Your task to perform on an android device: set the timer Image 0: 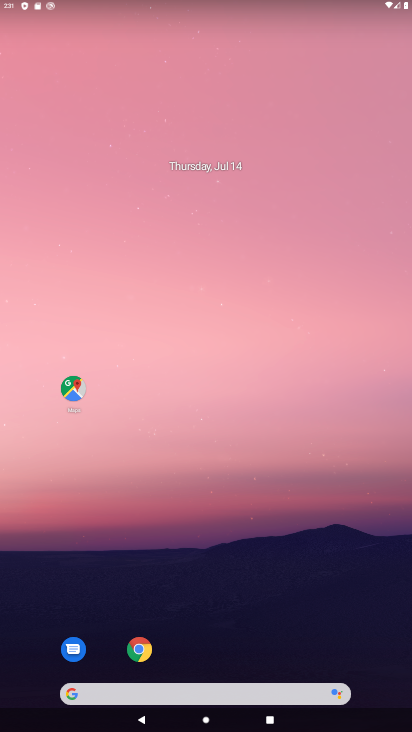
Step 0: drag from (32, 684) to (195, 213)
Your task to perform on an android device: set the timer Image 1: 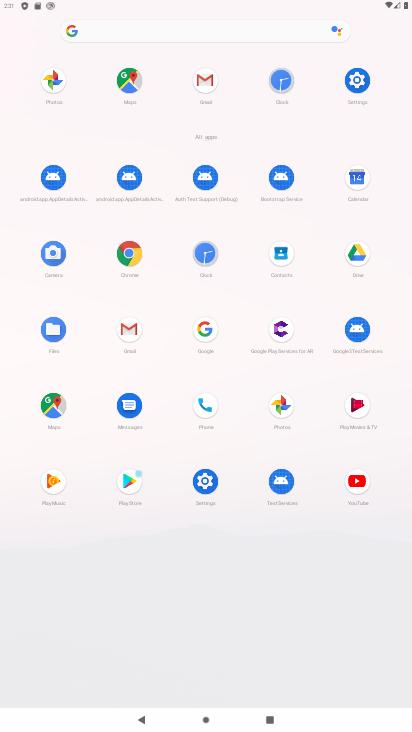
Step 1: click (204, 263)
Your task to perform on an android device: set the timer Image 2: 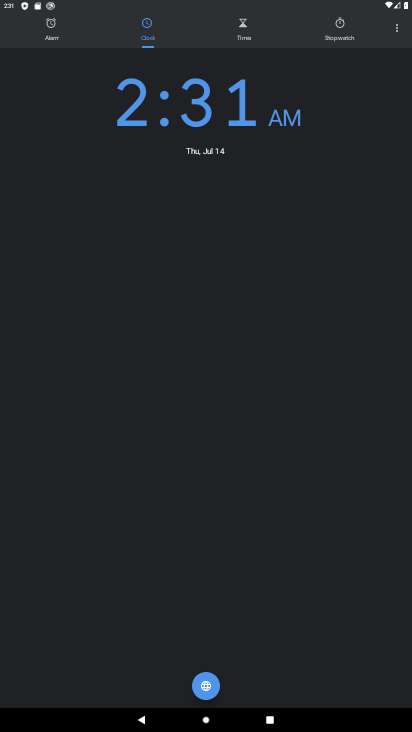
Step 2: click (246, 34)
Your task to perform on an android device: set the timer Image 3: 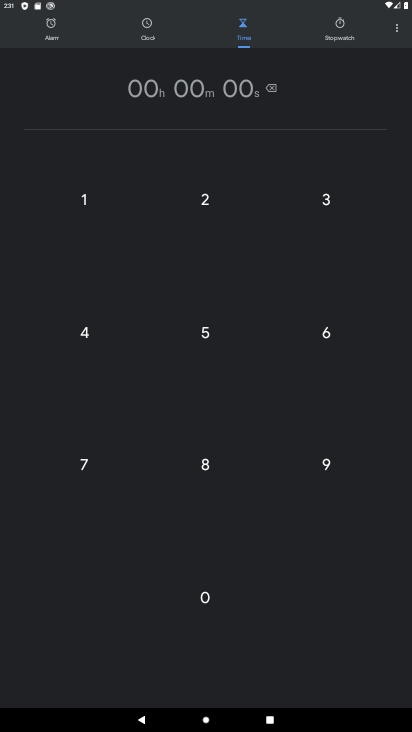
Step 3: click (192, 280)
Your task to perform on an android device: set the timer Image 4: 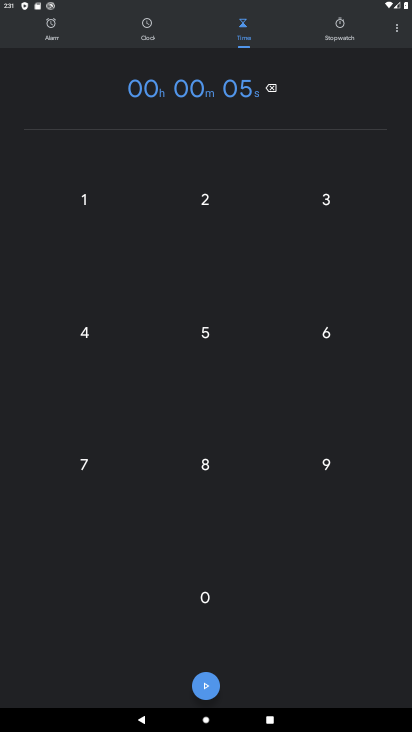
Step 4: click (132, 93)
Your task to perform on an android device: set the timer Image 5: 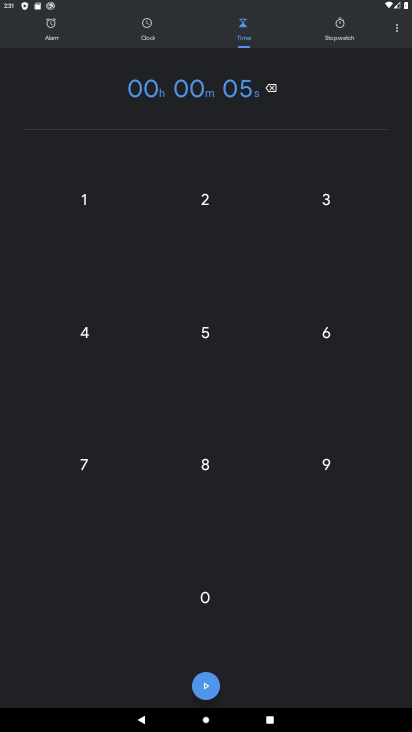
Step 5: click (100, 230)
Your task to perform on an android device: set the timer Image 6: 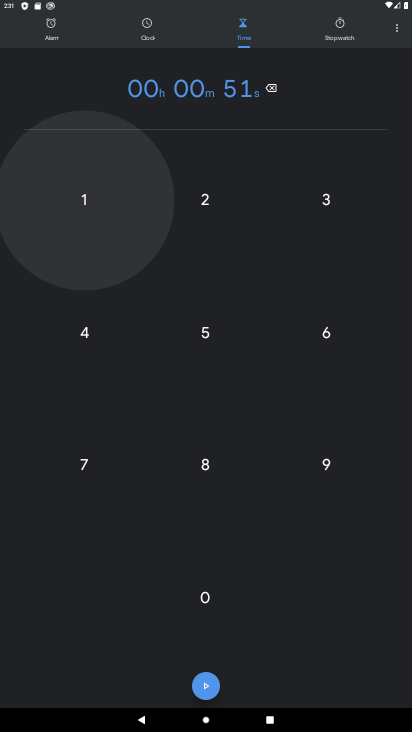
Step 6: click (98, 312)
Your task to perform on an android device: set the timer Image 7: 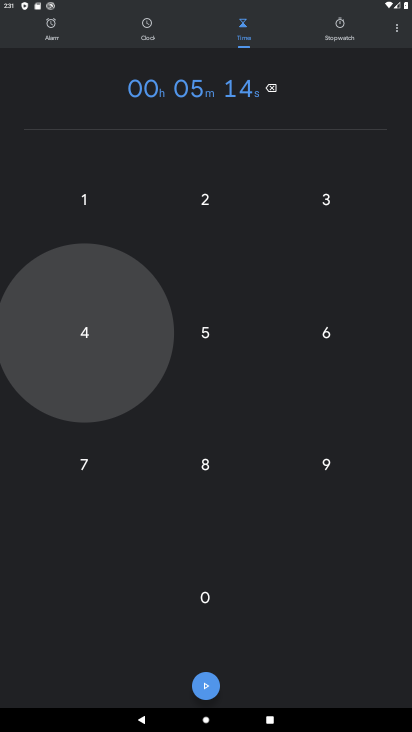
Step 7: click (76, 347)
Your task to perform on an android device: set the timer Image 8: 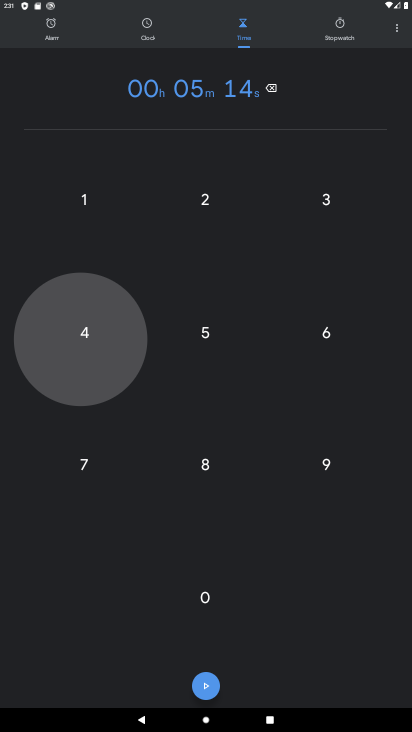
Step 8: click (207, 301)
Your task to perform on an android device: set the timer Image 9: 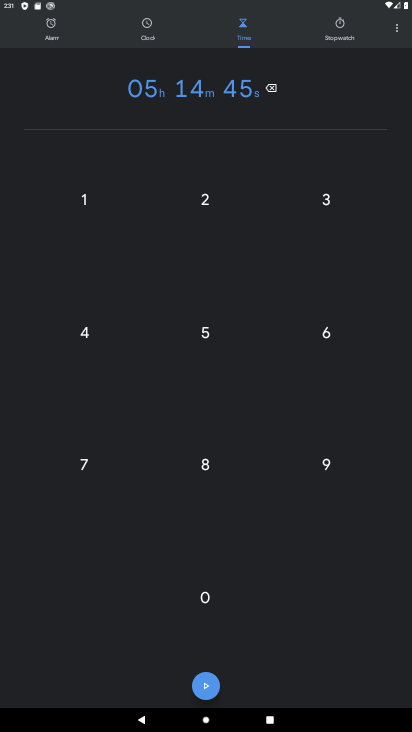
Step 9: click (201, 694)
Your task to perform on an android device: set the timer Image 10: 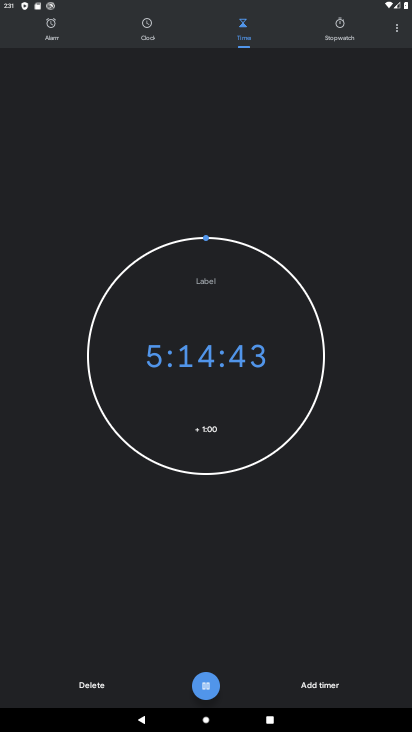
Step 10: click (202, 687)
Your task to perform on an android device: set the timer Image 11: 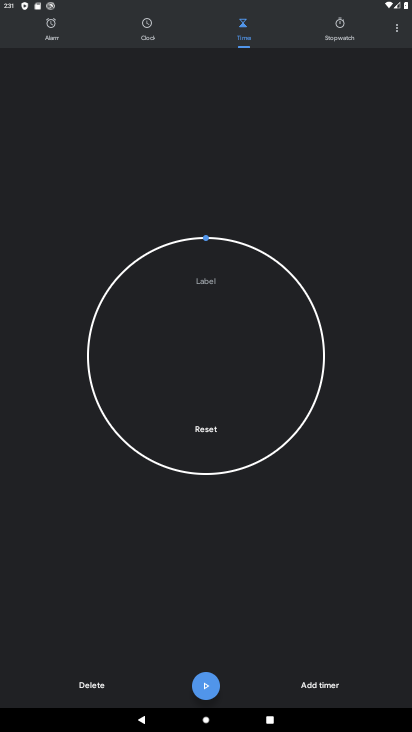
Step 11: task complete